Your task to perform on an android device: change text size in settings app Image 0: 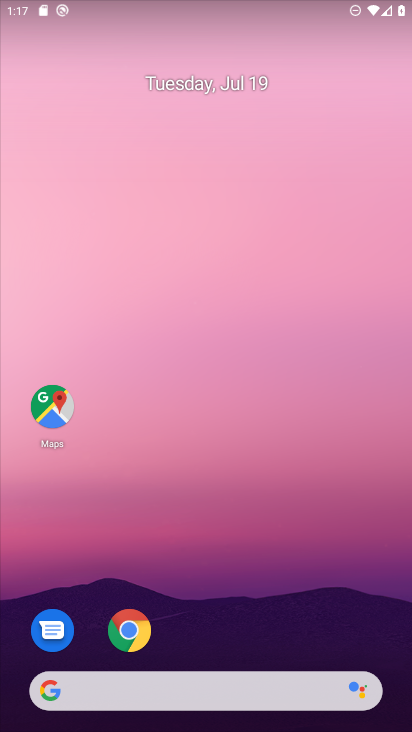
Step 0: press home button
Your task to perform on an android device: change text size in settings app Image 1: 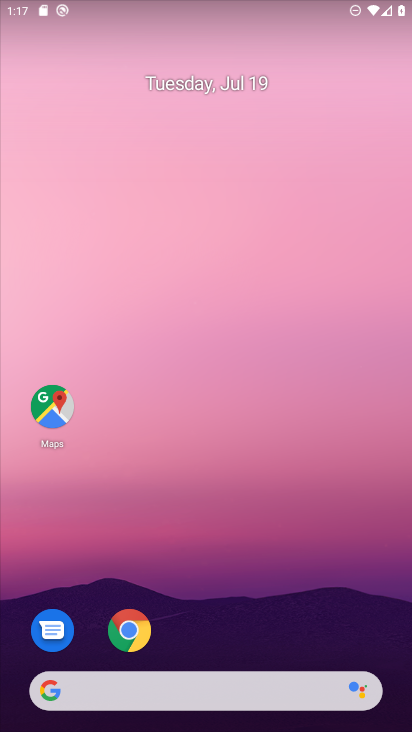
Step 1: drag from (171, 700) to (281, 143)
Your task to perform on an android device: change text size in settings app Image 2: 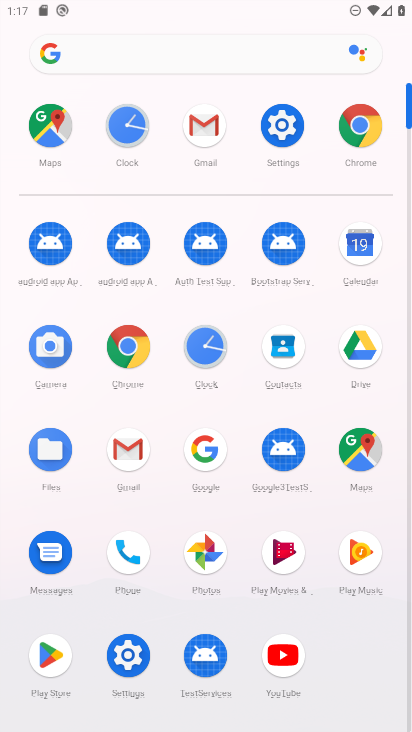
Step 2: click (285, 129)
Your task to perform on an android device: change text size in settings app Image 3: 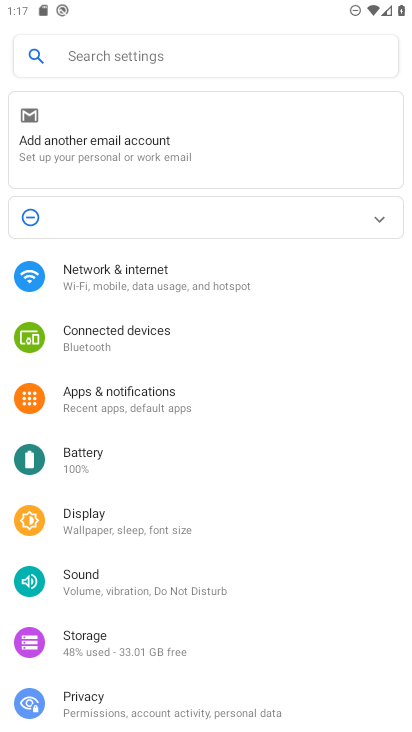
Step 3: click (99, 516)
Your task to perform on an android device: change text size in settings app Image 4: 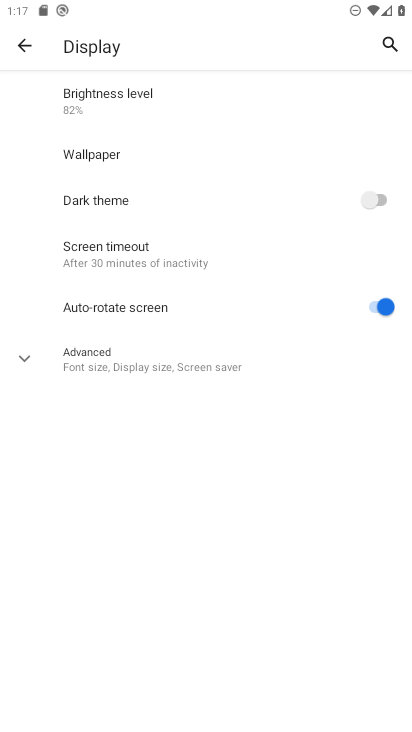
Step 4: click (146, 366)
Your task to perform on an android device: change text size in settings app Image 5: 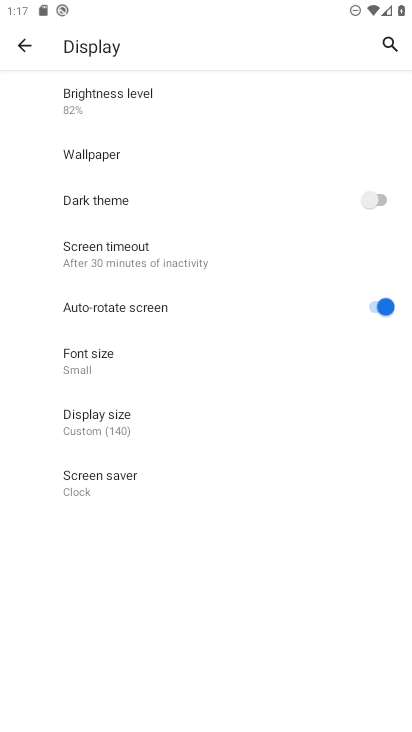
Step 5: click (92, 354)
Your task to perform on an android device: change text size in settings app Image 6: 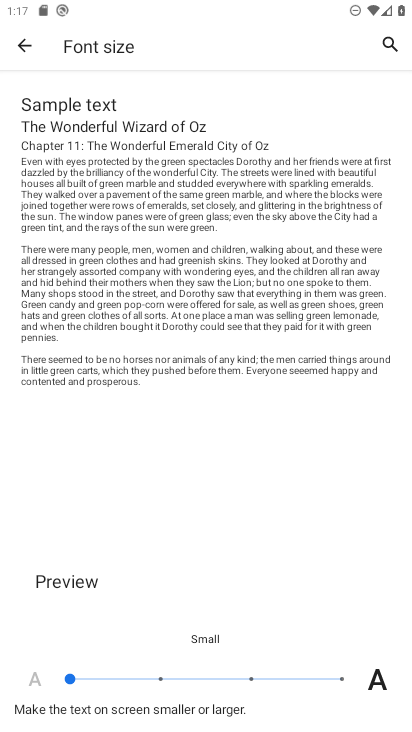
Step 6: click (157, 679)
Your task to perform on an android device: change text size in settings app Image 7: 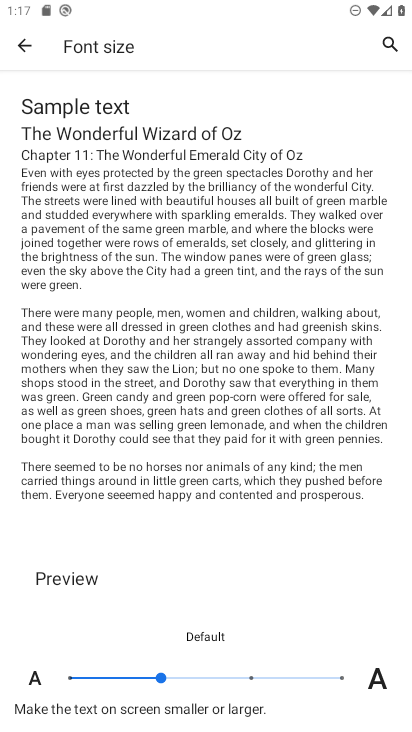
Step 7: task complete